Your task to perform on an android device: check storage Image 0: 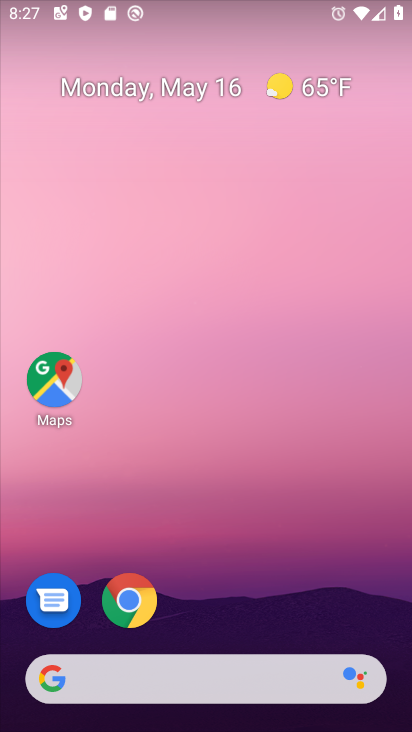
Step 0: drag from (229, 517) to (256, 118)
Your task to perform on an android device: check storage Image 1: 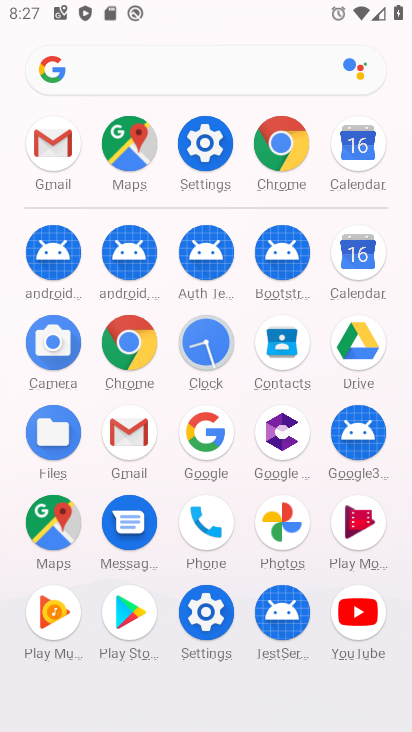
Step 1: click (215, 138)
Your task to perform on an android device: check storage Image 2: 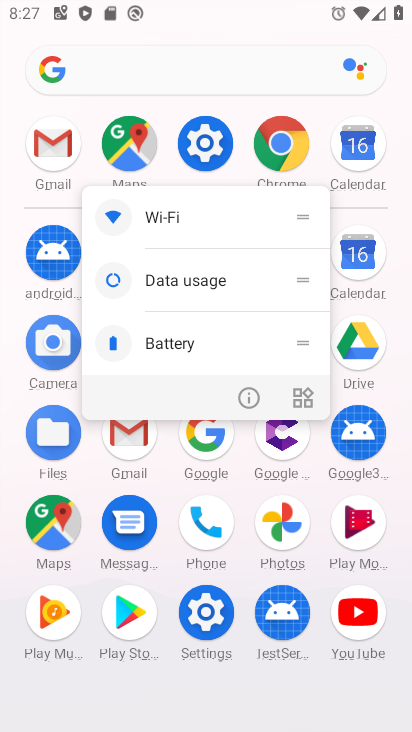
Step 2: click (245, 402)
Your task to perform on an android device: check storage Image 3: 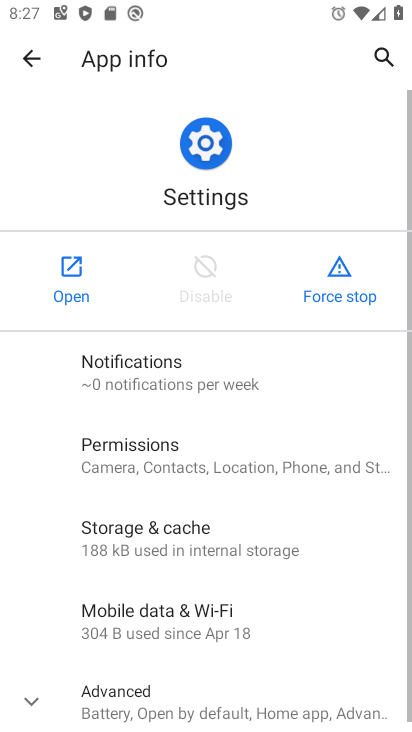
Step 3: click (83, 266)
Your task to perform on an android device: check storage Image 4: 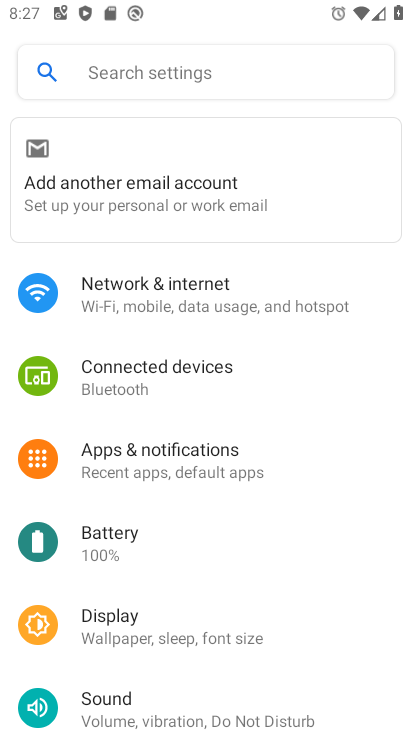
Step 4: drag from (212, 570) to (331, 3)
Your task to perform on an android device: check storage Image 5: 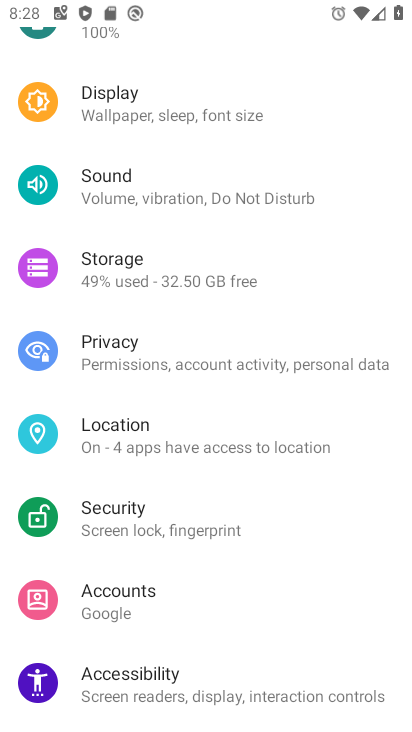
Step 5: click (167, 262)
Your task to perform on an android device: check storage Image 6: 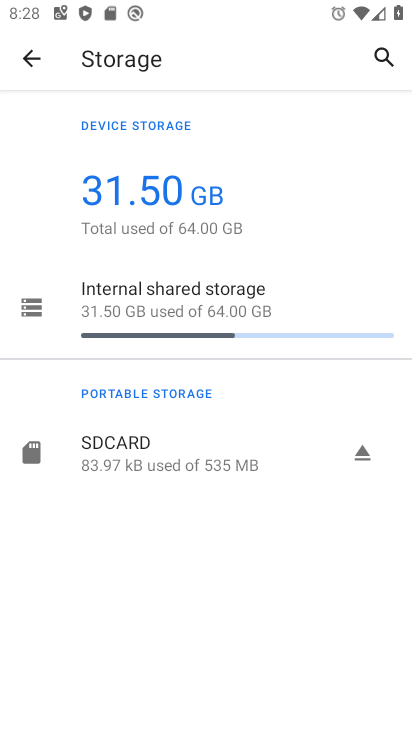
Step 6: task complete